Your task to perform on an android device: Go to Reddit.com Image 0: 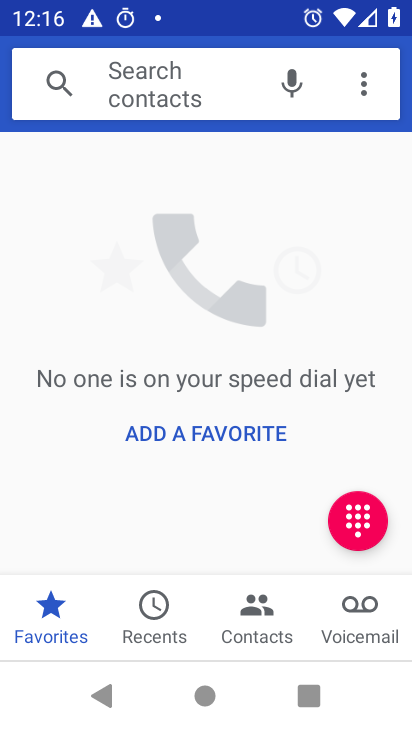
Step 0: press back button
Your task to perform on an android device: Go to Reddit.com Image 1: 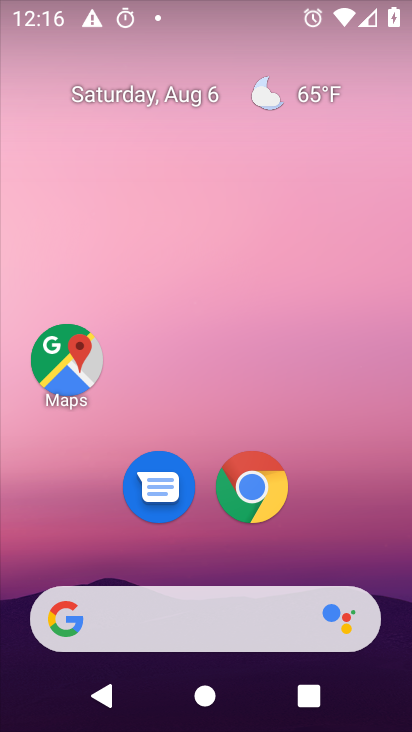
Step 1: click (245, 496)
Your task to perform on an android device: Go to Reddit.com Image 2: 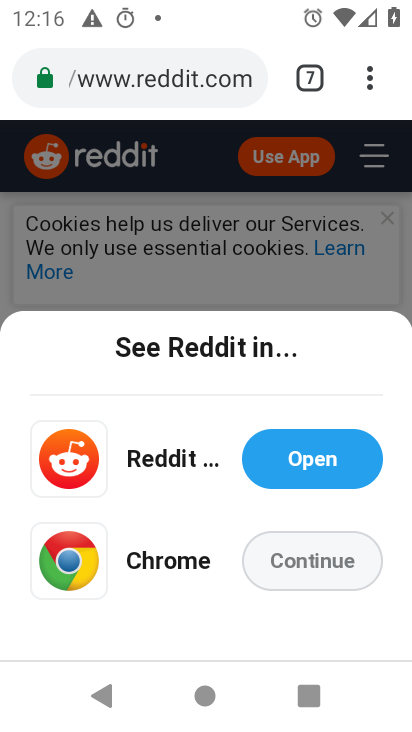
Step 2: task complete